Your task to perform on an android device: turn on improve location accuracy Image 0: 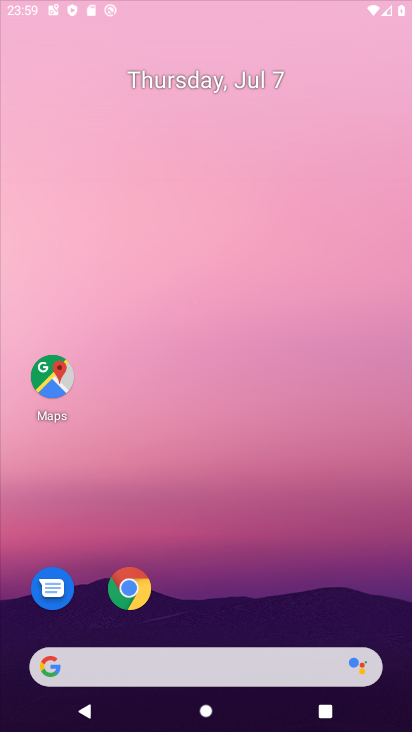
Step 0: drag from (408, 149) to (408, 579)
Your task to perform on an android device: turn on improve location accuracy Image 1: 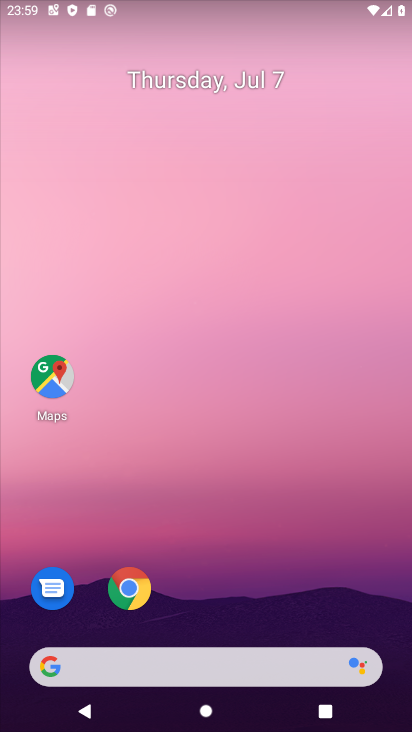
Step 1: drag from (199, 619) to (237, 119)
Your task to perform on an android device: turn on improve location accuracy Image 2: 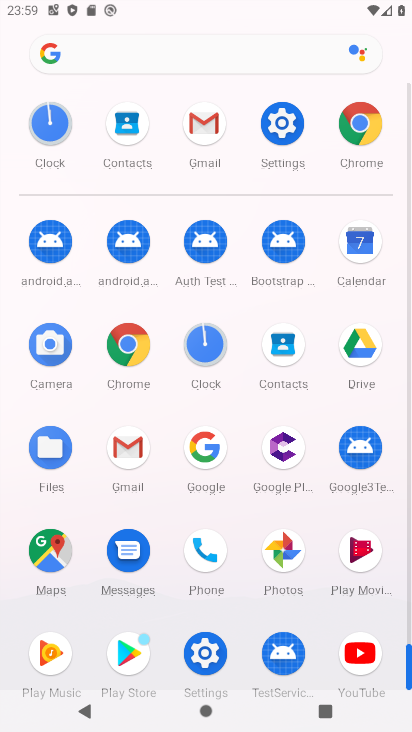
Step 2: click (283, 121)
Your task to perform on an android device: turn on improve location accuracy Image 3: 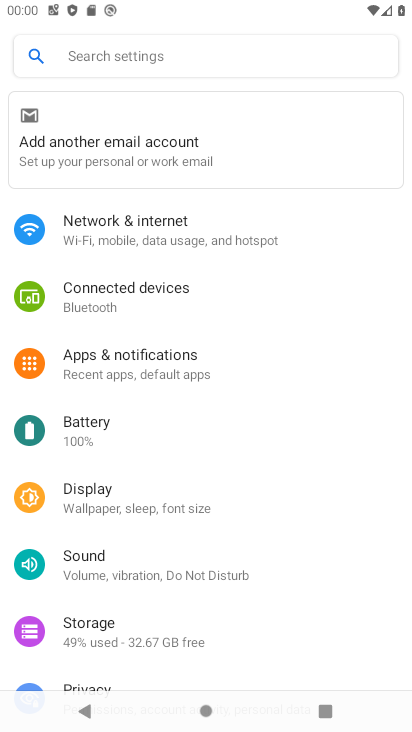
Step 3: drag from (234, 568) to (229, 291)
Your task to perform on an android device: turn on improve location accuracy Image 4: 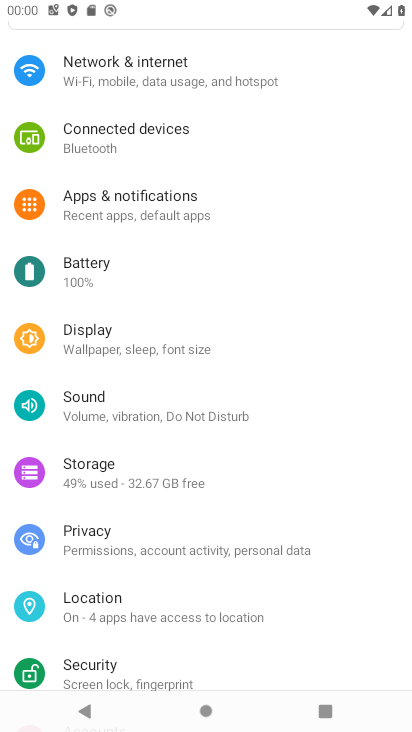
Step 4: drag from (226, 229) to (229, 640)
Your task to perform on an android device: turn on improve location accuracy Image 5: 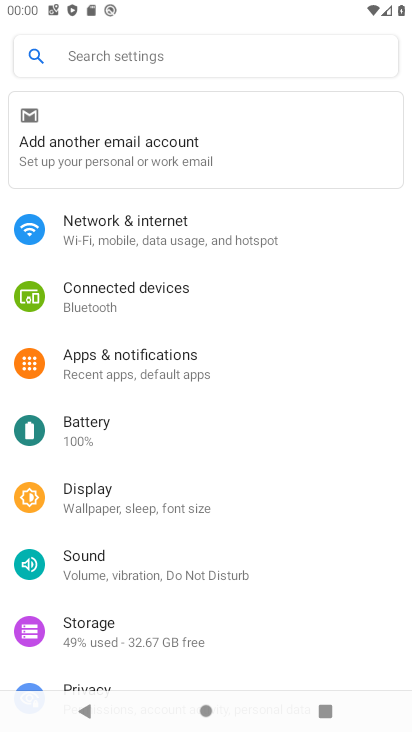
Step 5: drag from (206, 464) to (185, 284)
Your task to perform on an android device: turn on improve location accuracy Image 6: 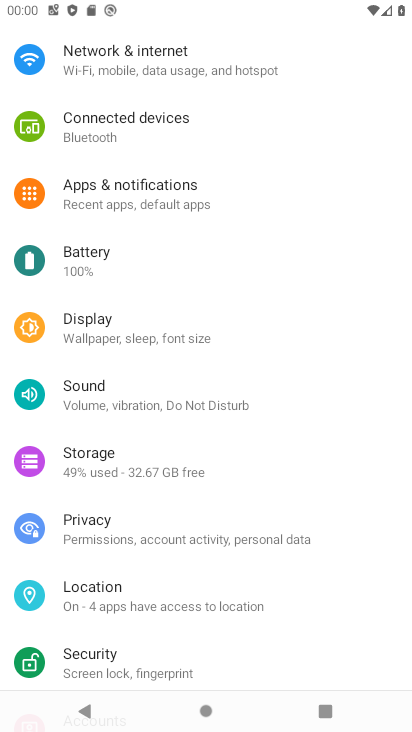
Step 6: drag from (259, 578) to (269, 156)
Your task to perform on an android device: turn on improve location accuracy Image 7: 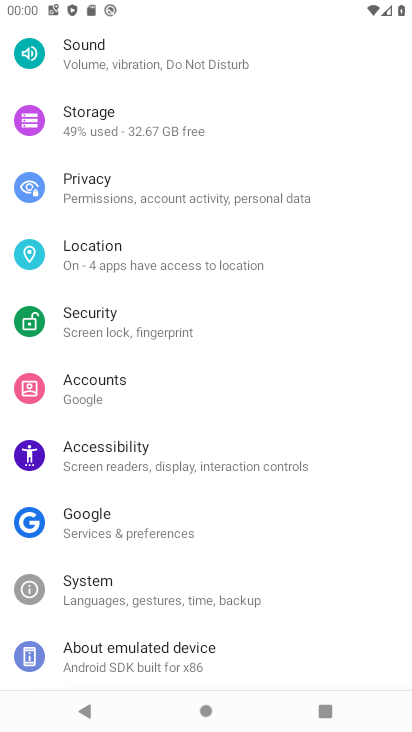
Step 7: drag from (241, 110) to (292, 724)
Your task to perform on an android device: turn on improve location accuracy Image 8: 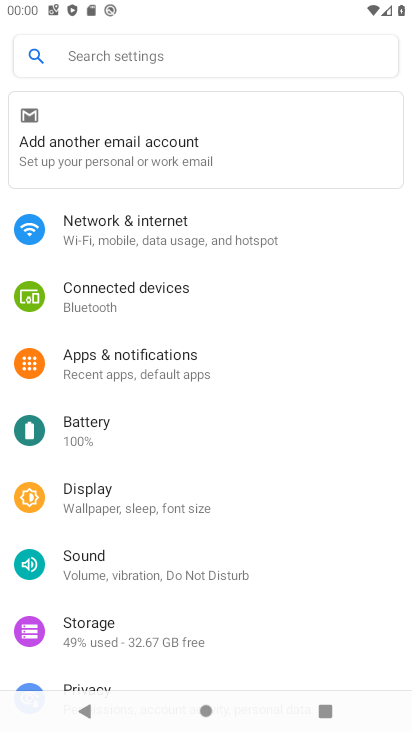
Step 8: drag from (187, 632) to (169, 256)
Your task to perform on an android device: turn on improve location accuracy Image 9: 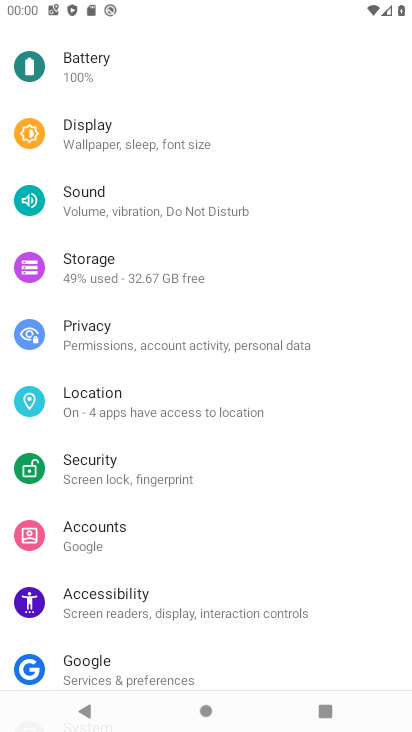
Step 9: drag from (125, 647) to (171, 320)
Your task to perform on an android device: turn on improve location accuracy Image 10: 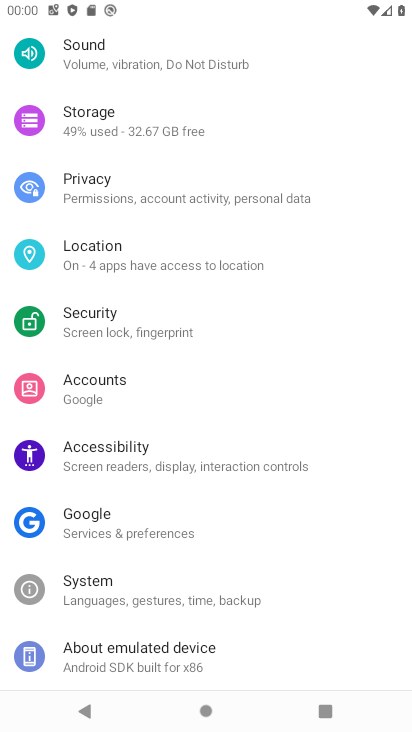
Step 10: drag from (189, 234) to (346, 83)
Your task to perform on an android device: turn on improve location accuracy Image 11: 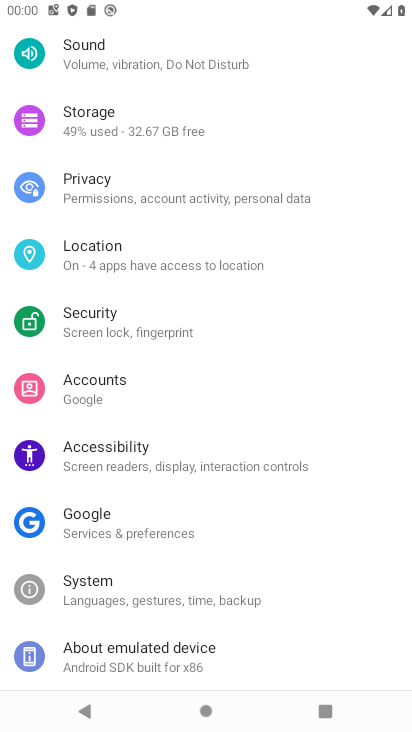
Step 11: drag from (215, 573) to (263, 253)
Your task to perform on an android device: turn on improve location accuracy Image 12: 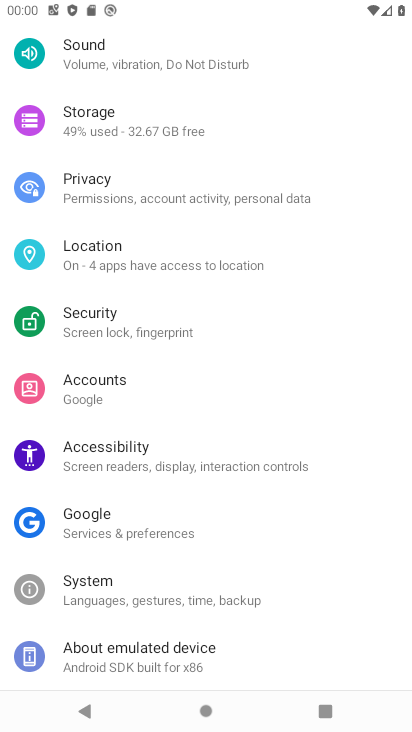
Step 12: drag from (197, 552) to (266, 281)
Your task to perform on an android device: turn on improve location accuracy Image 13: 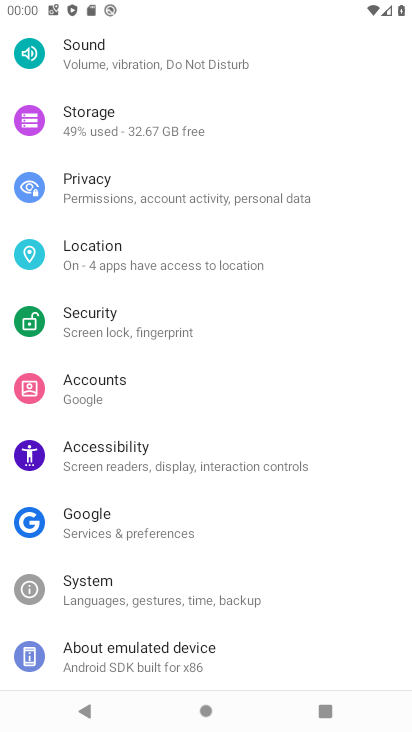
Step 13: drag from (223, 530) to (235, 328)
Your task to perform on an android device: turn on improve location accuracy Image 14: 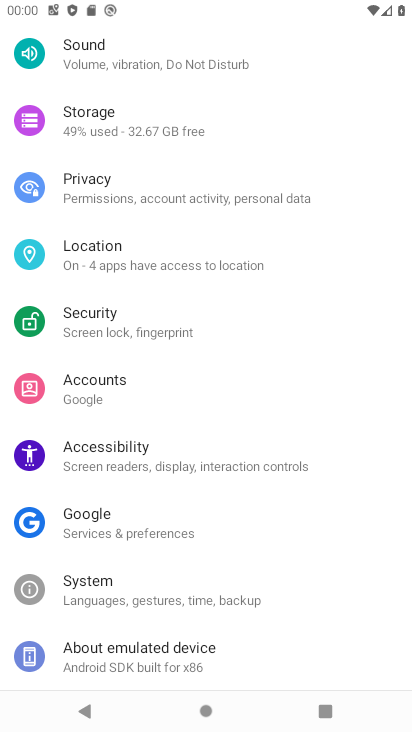
Step 14: drag from (207, 537) to (257, 302)
Your task to perform on an android device: turn on improve location accuracy Image 15: 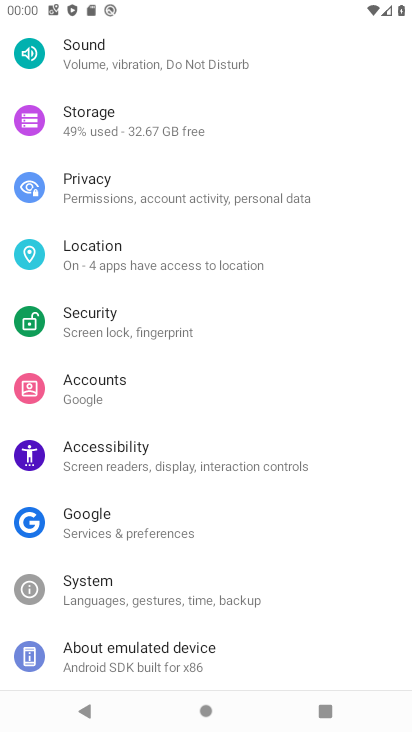
Step 15: drag from (195, 576) to (168, 384)
Your task to perform on an android device: turn on improve location accuracy Image 16: 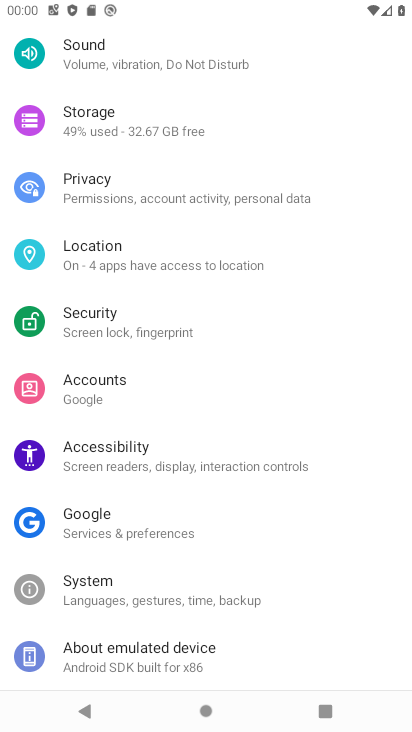
Step 16: drag from (161, 651) to (252, 359)
Your task to perform on an android device: turn on improve location accuracy Image 17: 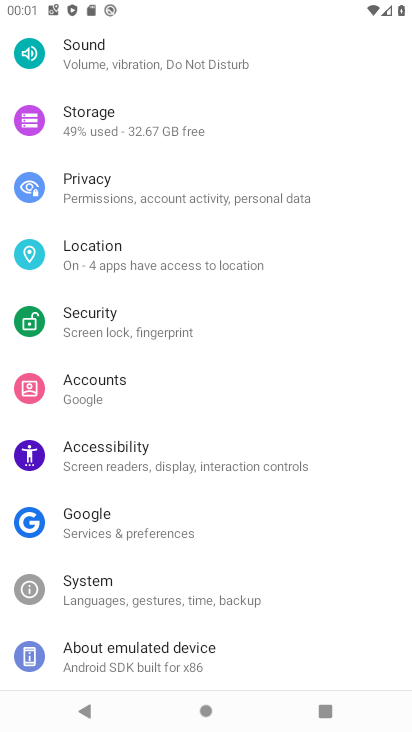
Step 17: drag from (106, 610) to (152, 300)
Your task to perform on an android device: turn on improve location accuracy Image 18: 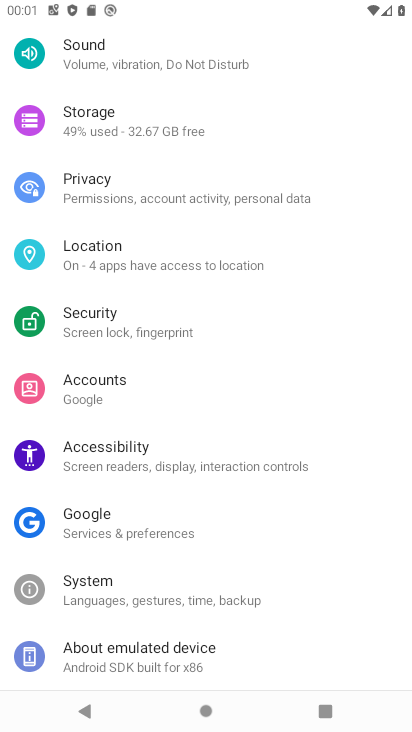
Step 18: drag from (195, 509) to (190, 291)
Your task to perform on an android device: turn on improve location accuracy Image 19: 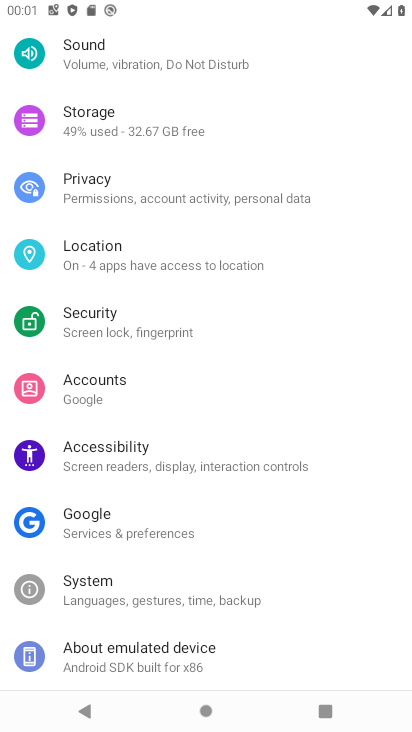
Step 19: drag from (167, 585) to (201, 280)
Your task to perform on an android device: turn on improve location accuracy Image 20: 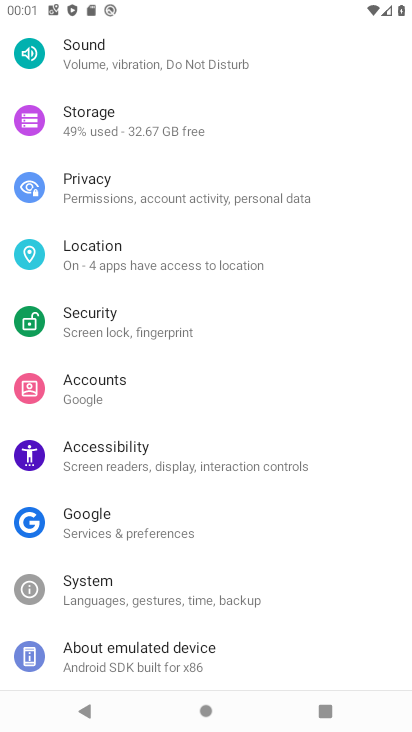
Step 20: drag from (240, 569) to (192, 221)
Your task to perform on an android device: turn on improve location accuracy Image 21: 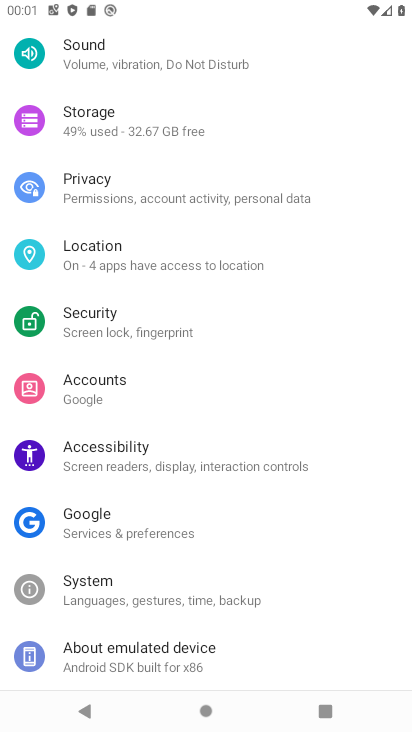
Step 21: click (142, 259)
Your task to perform on an android device: turn on improve location accuracy Image 22: 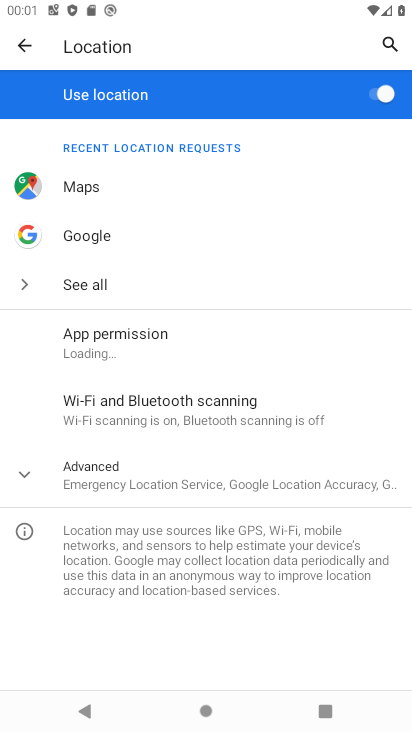
Step 22: drag from (244, 495) to (258, 257)
Your task to perform on an android device: turn on improve location accuracy Image 23: 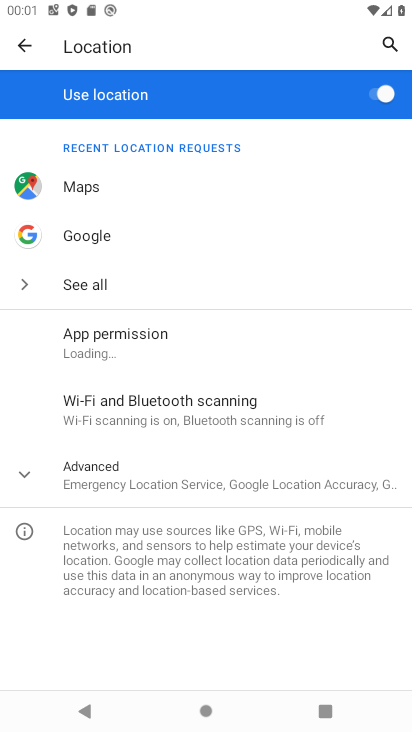
Step 23: click (110, 467)
Your task to perform on an android device: turn on improve location accuracy Image 24: 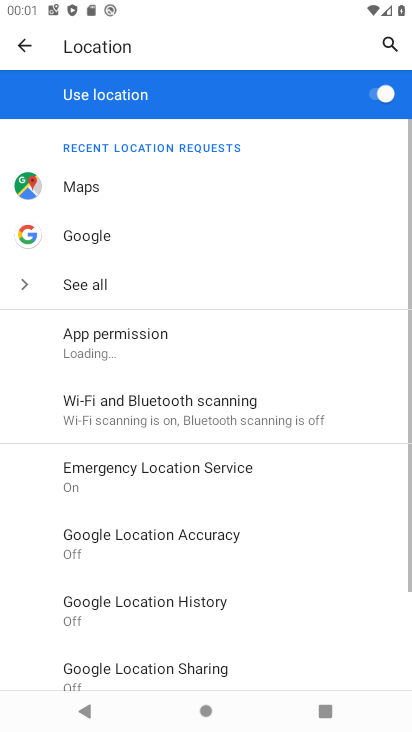
Step 24: drag from (119, 476) to (191, 203)
Your task to perform on an android device: turn on improve location accuracy Image 25: 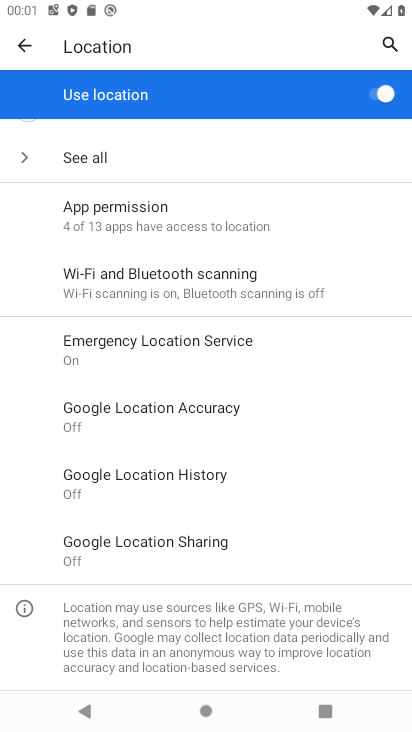
Step 25: drag from (224, 397) to (294, 222)
Your task to perform on an android device: turn on improve location accuracy Image 26: 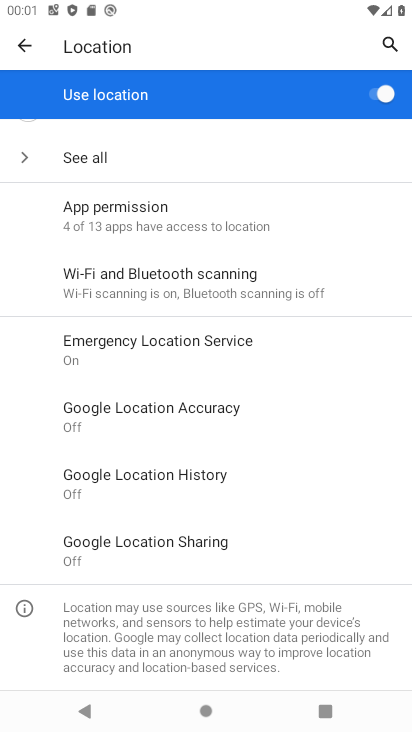
Step 26: drag from (194, 431) to (198, 294)
Your task to perform on an android device: turn on improve location accuracy Image 27: 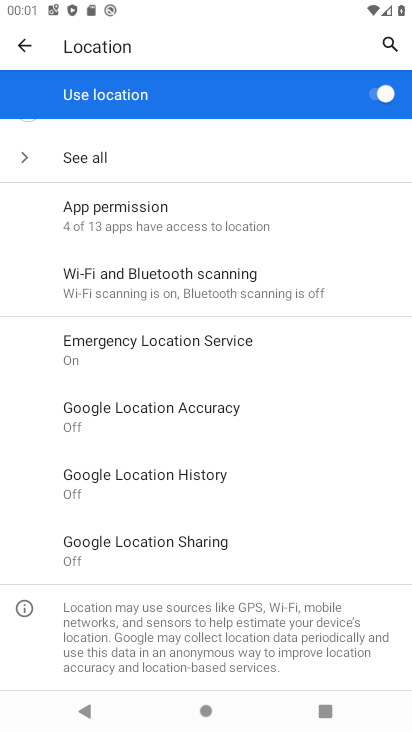
Step 27: drag from (186, 435) to (208, 271)
Your task to perform on an android device: turn on improve location accuracy Image 28: 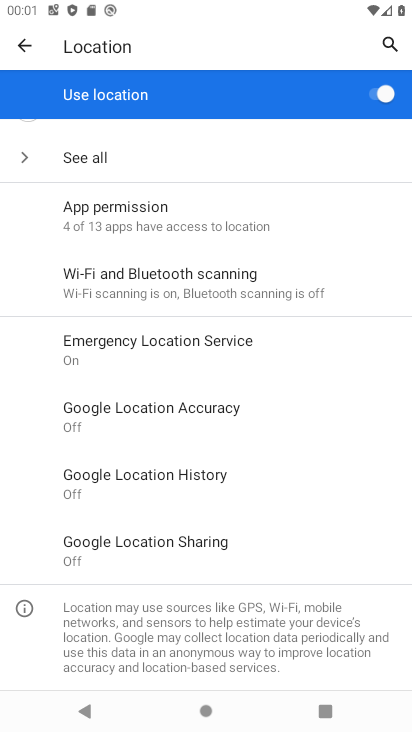
Step 28: drag from (224, 486) to (246, 377)
Your task to perform on an android device: turn on improve location accuracy Image 29: 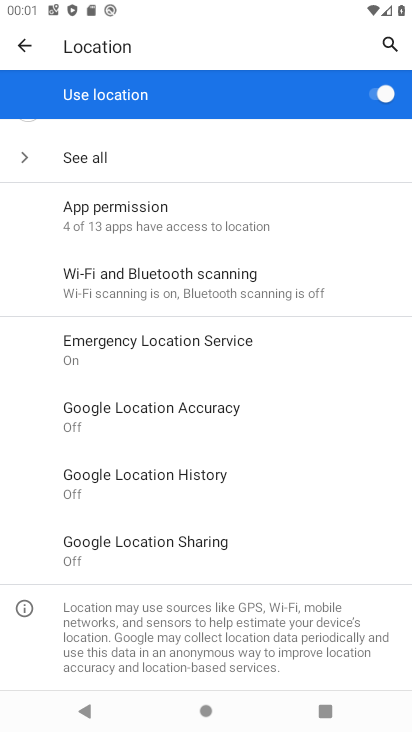
Step 29: drag from (211, 464) to (243, 386)
Your task to perform on an android device: turn on improve location accuracy Image 30: 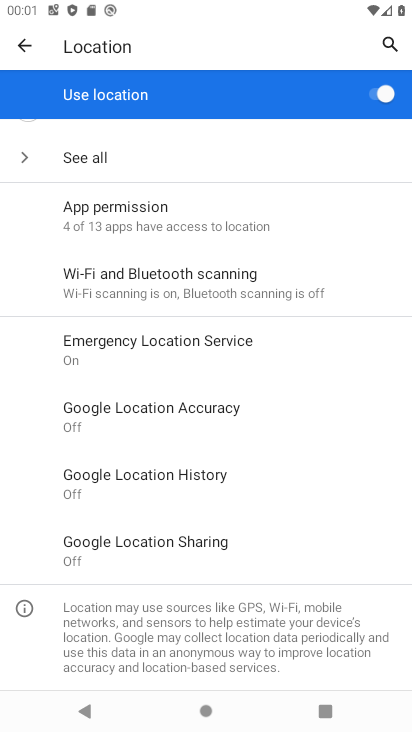
Step 30: drag from (212, 467) to (259, 204)
Your task to perform on an android device: turn on improve location accuracy Image 31: 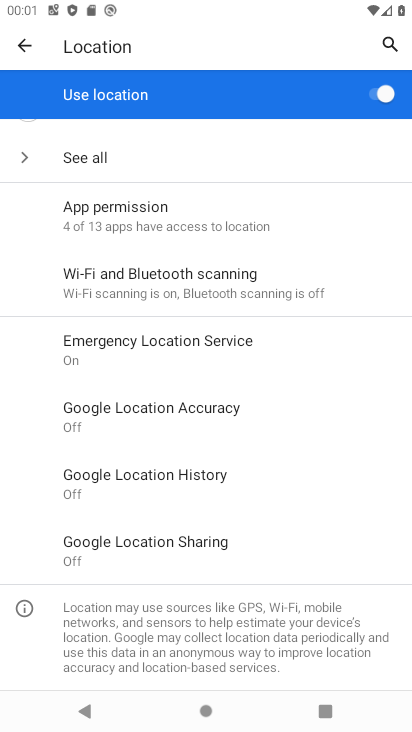
Step 31: click (215, 399)
Your task to perform on an android device: turn on improve location accuracy Image 32: 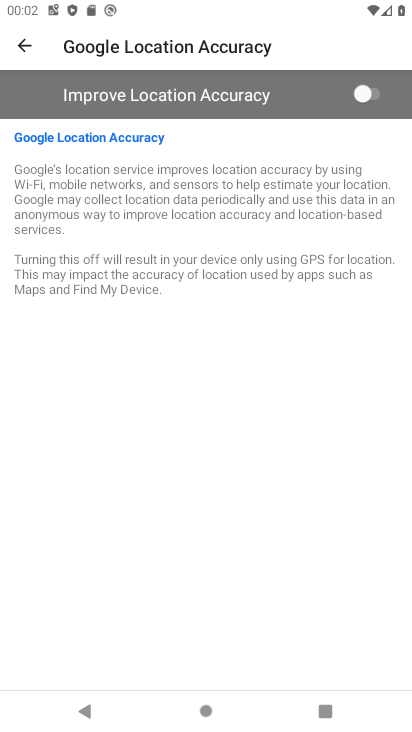
Step 32: click (345, 87)
Your task to perform on an android device: turn on improve location accuracy Image 33: 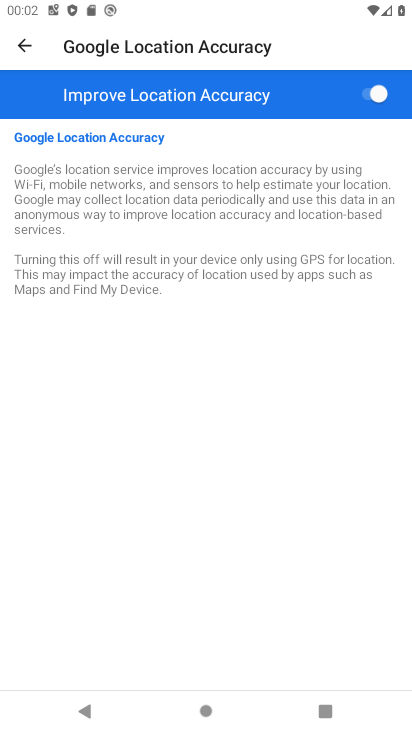
Step 33: task complete